Your task to perform on an android device: snooze an email in the gmail app Image 0: 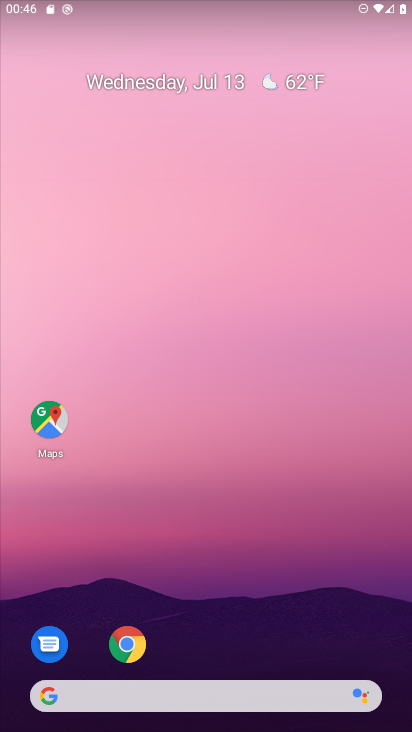
Step 0: drag from (216, 646) to (230, 110)
Your task to perform on an android device: snooze an email in the gmail app Image 1: 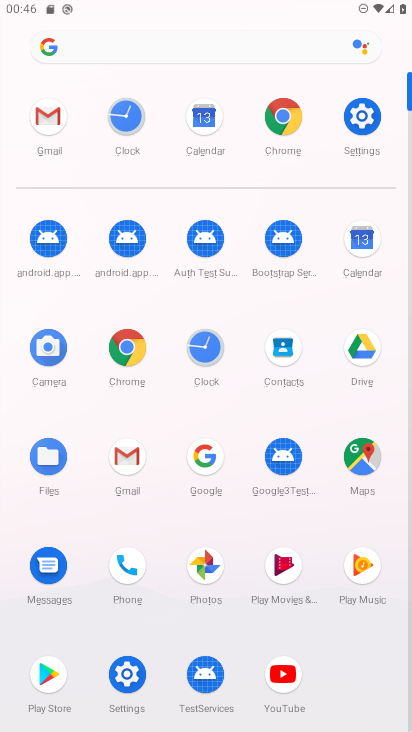
Step 1: click (125, 461)
Your task to perform on an android device: snooze an email in the gmail app Image 2: 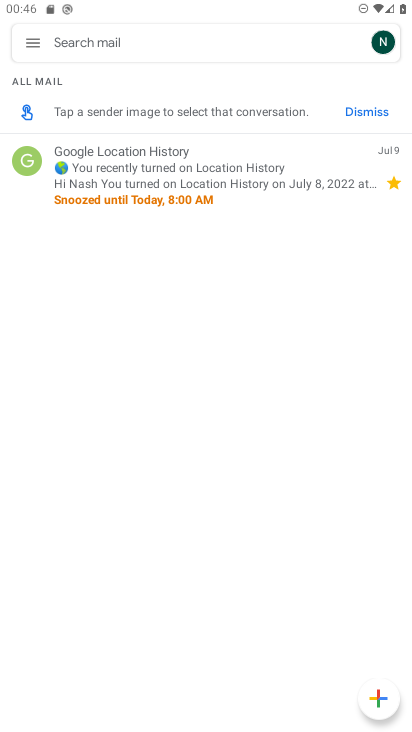
Step 2: click (99, 134)
Your task to perform on an android device: snooze an email in the gmail app Image 3: 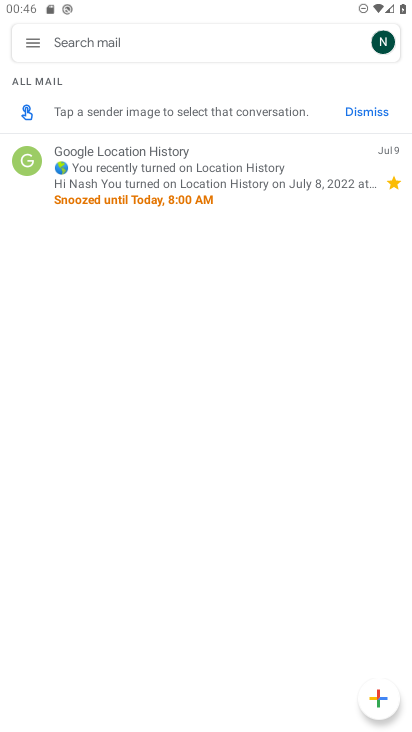
Step 3: click (101, 149)
Your task to perform on an android device: snooze an email in the gmail app Image 4: 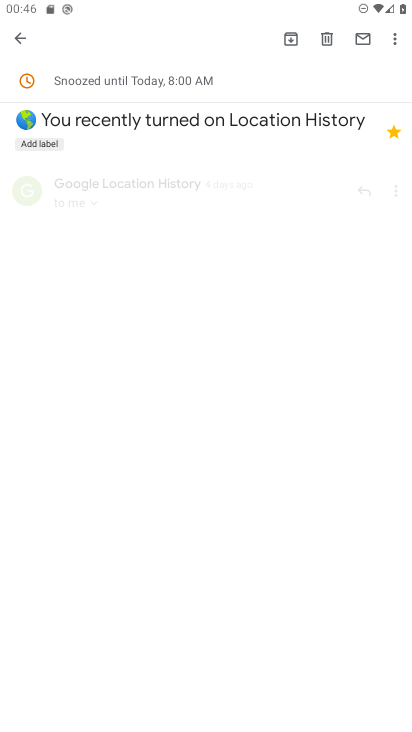
Step 4: click (392, 44)
Your task to perform on an android device: snooze an email in the gmail app Image 5: 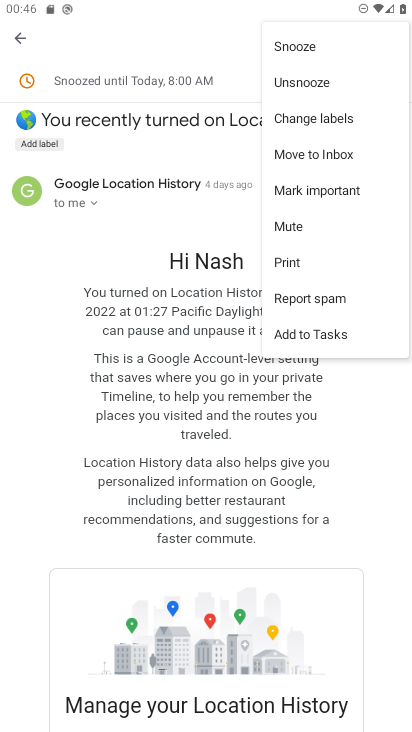
Step 5: click (325, 51)
Your task to perform on an android device: snooze an email in the gmail app Image 6: 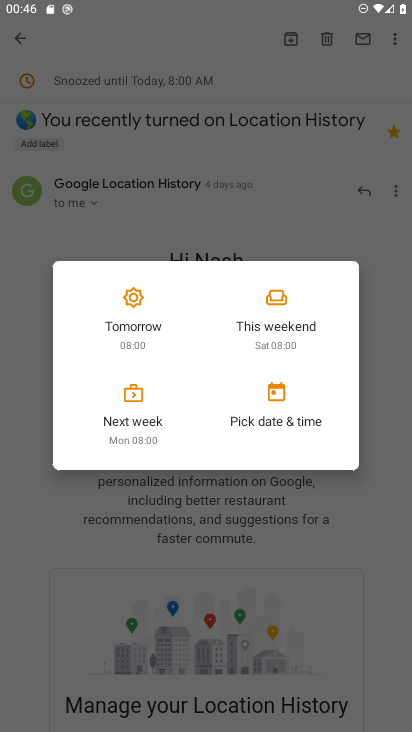
Step 6: click (276, 401)
Your task to perform on an android device: snooze an email in the gmail app Image 7: 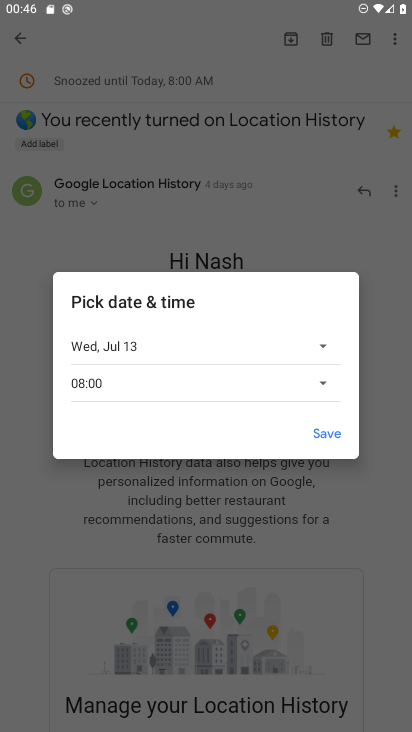
Step 7: click (321, 431)
Your task to perform on an android device: snooze an email in the gmail app Image 8: 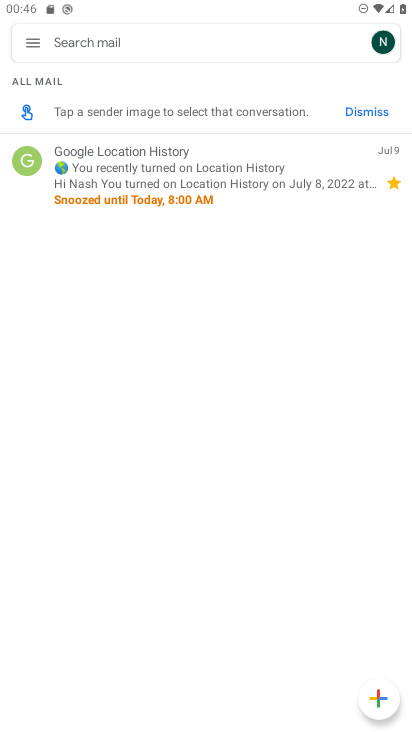
Step 8: task complete